Your task to perform on an android device: Open calendar and show me the first week of next month Image 0: 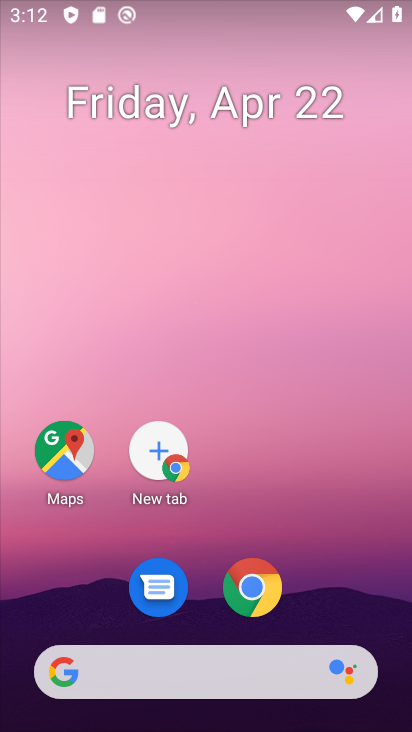
Step 0: click (166, 104)
Your task to perform on an android device: Open calendar and show me the first week of next month Image 1: 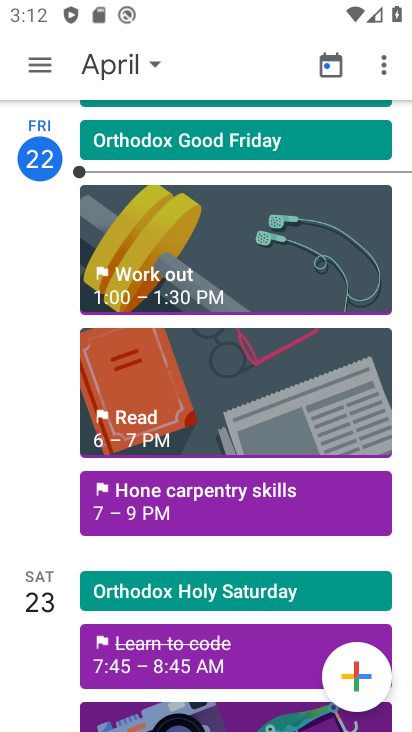
Step 1: click (143, 47)
Your task to perform on an android device: Open calendar and show me the first week of next month Image 2: 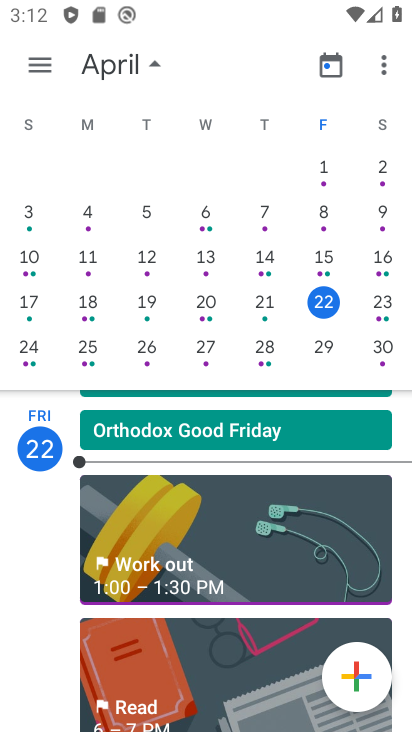
Step 2: drag from (388, 328) to (0, 245)
Your task to perform on an android device: Open calendar and show me the first week of next month Image 3: 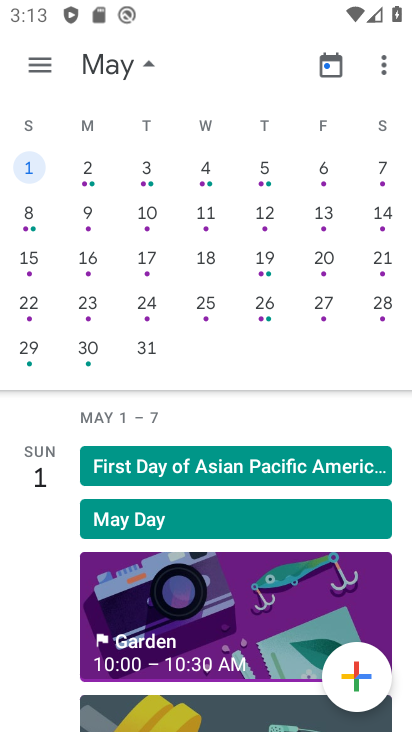
Step 3: click (85, 168)
Your task to perform on an android device: Open calendar and show me the first week of next month Image 4: 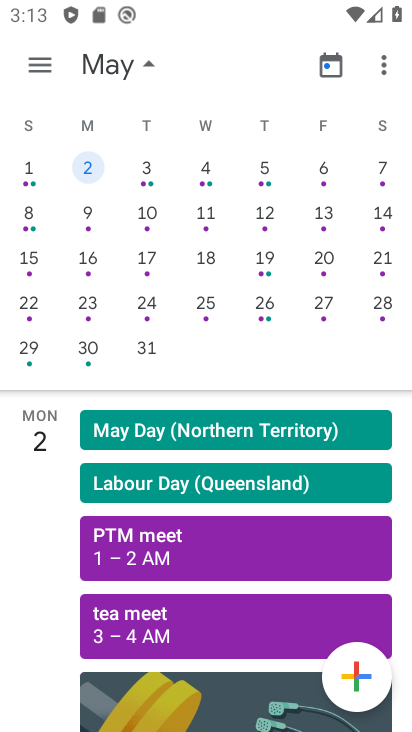
Step 4: task complete